Your task to perform on an android device: clear history in the chrome app Image 0: 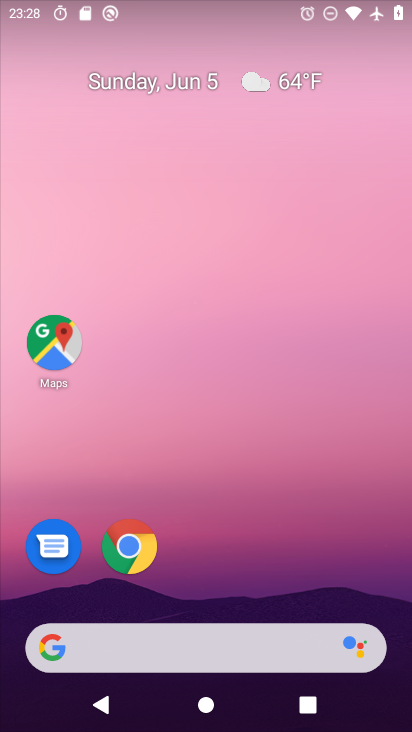
Step 0: drag from (215, 548) to (275, 125)
Your task to perform on an android device: clear history in the chrome app Image 1: 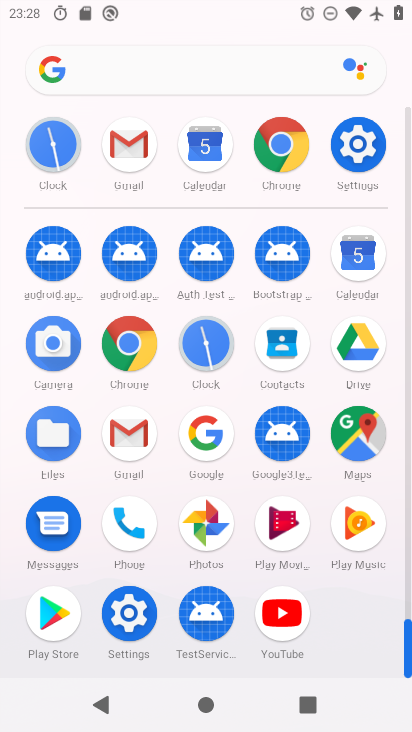
Step 1: click (120, 350)
Your task to perform on an android device: clear history in the chrome app Image 2: 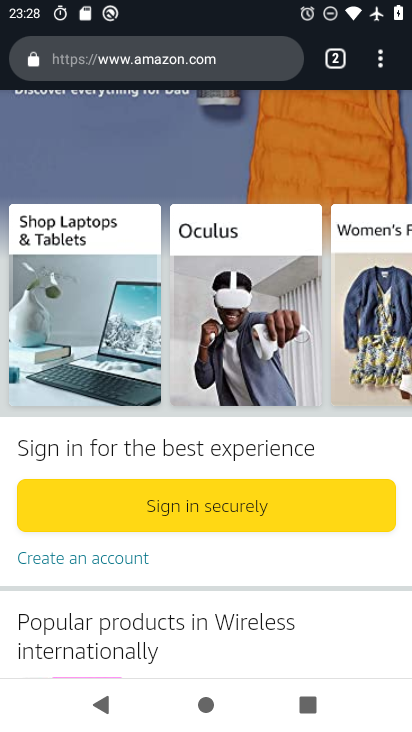
Step 2: drag from (384, 64) to (203, 322)
Your task to perform on an android device: clear history in the chrome app Image 3: 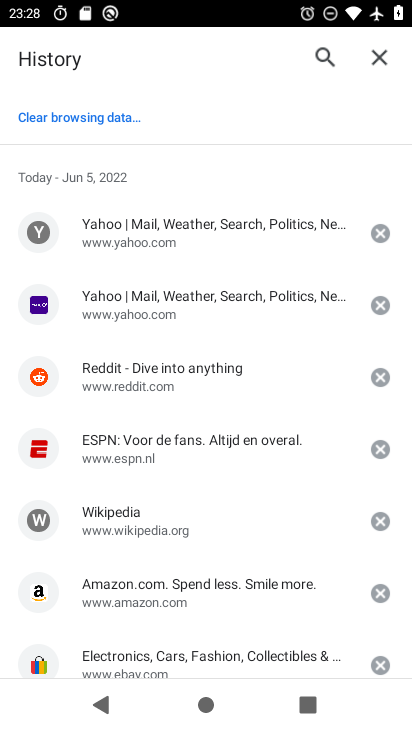
Step 3: drag from (226, 512) to (311, 140)
Your task to perform on an android device: clear history in the chrome app Image 4: 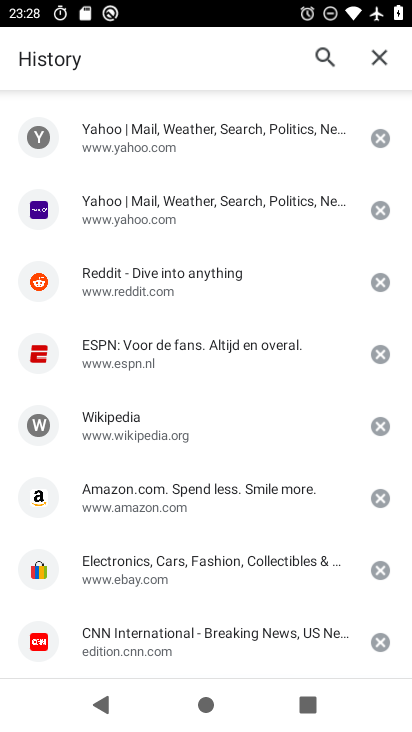
Step 4: drag from (235, 233) to (262, 644)
Your task to perform on an android device: clear history in the chrome app Image 5: 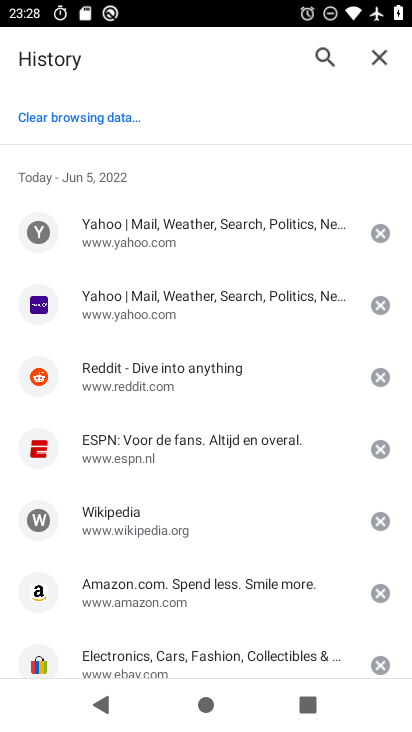
Step 5: drag from (184, 557) to (207, 333)
Your task to perform on an android device: clear history in the chrome app Image 6: 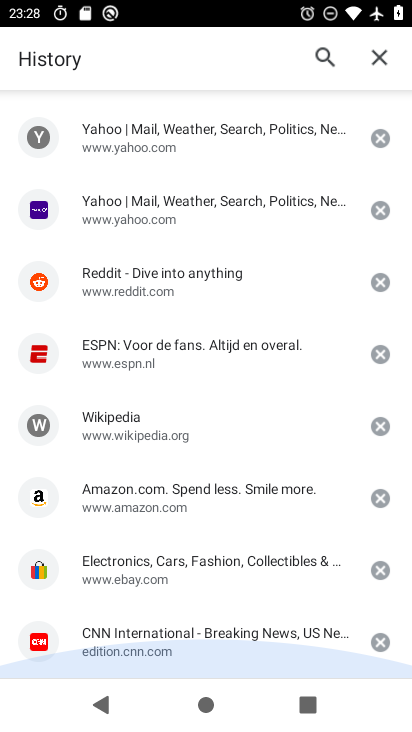
Step 6: drag from (207, 275) to (278, 704)
Your task to perform on an android device: clear history in the chrome app Image 7: 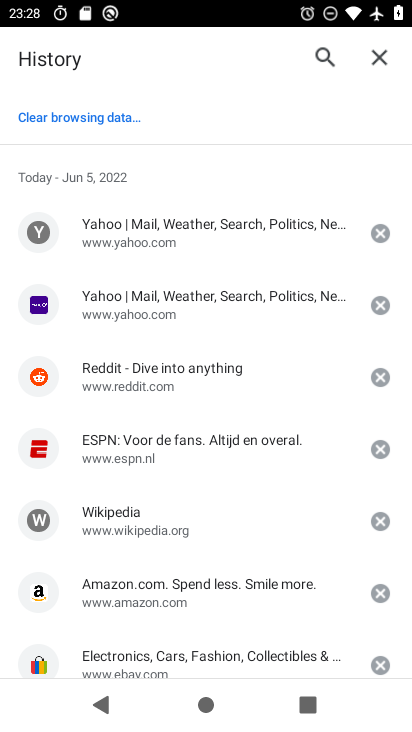
Step 7: drag from (191, 570) to (254, 225)
Your task to perform on an android device: clear history in the chrome app Image 8: 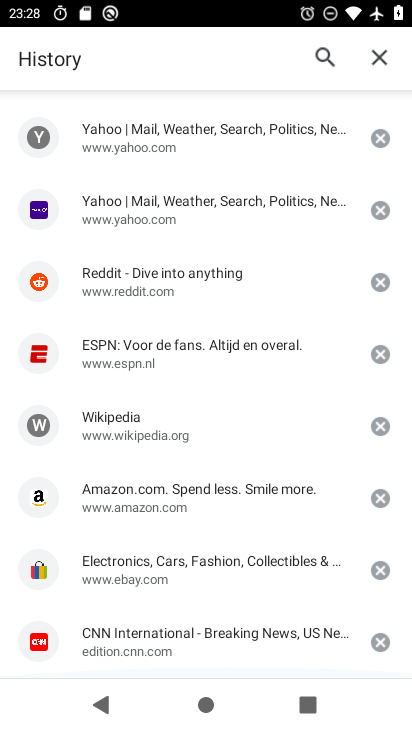
Step 8: drag from (212, 241) to (224, 721)
Your task to perform on an android device: clear history in the chrome app Image 9: 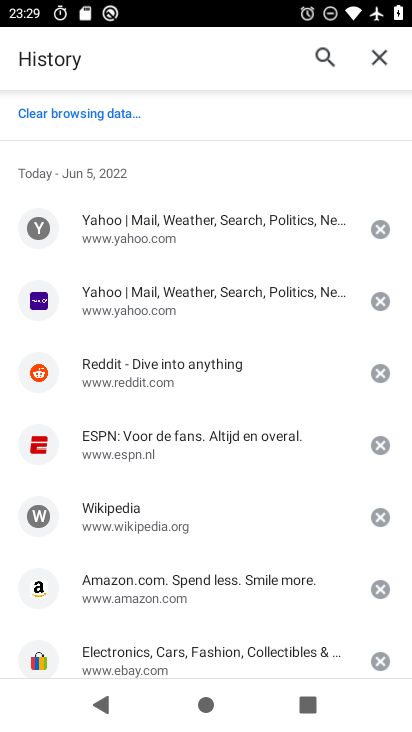
Step 9: click (81, 123)
Your task to perform on an android device: clear history in the chrome app Image 10: 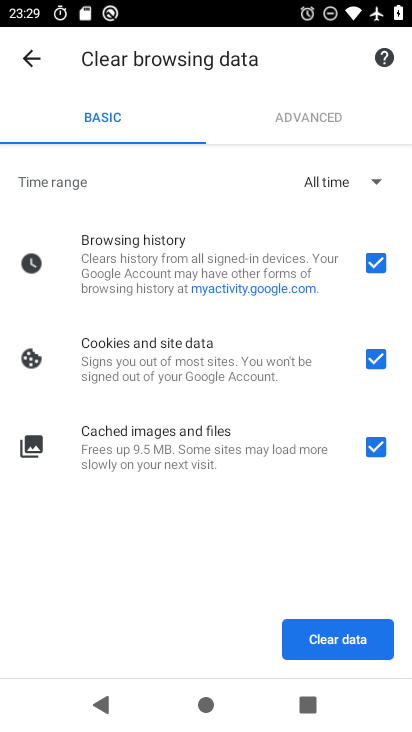
Step 10: click (337, 648)
Your task to perform on an android device: clear history in the chrome app Image 11: 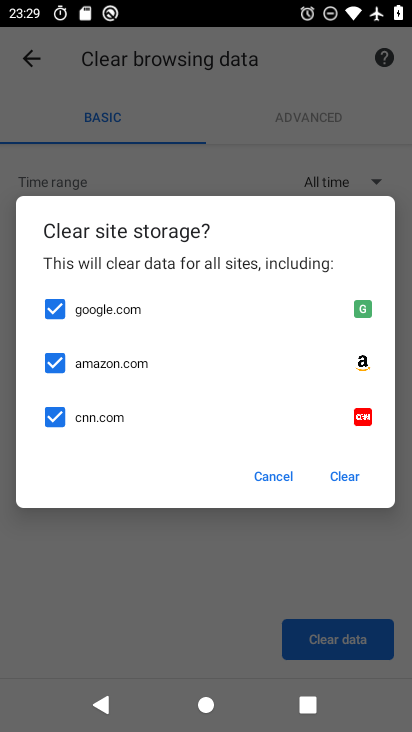
Step 11: click (340, 477)
Your task to perform on an android device: clear history in the chrome app Image 12: 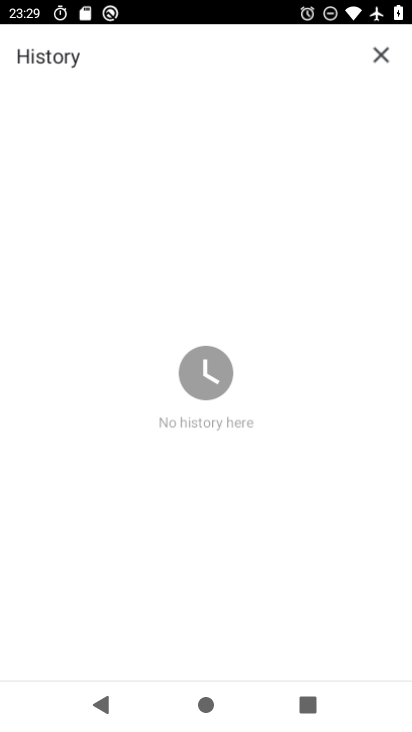
Step 12: task complete